Your task to perform on an android device: toggle notifications settings in the gmail app Image 0: 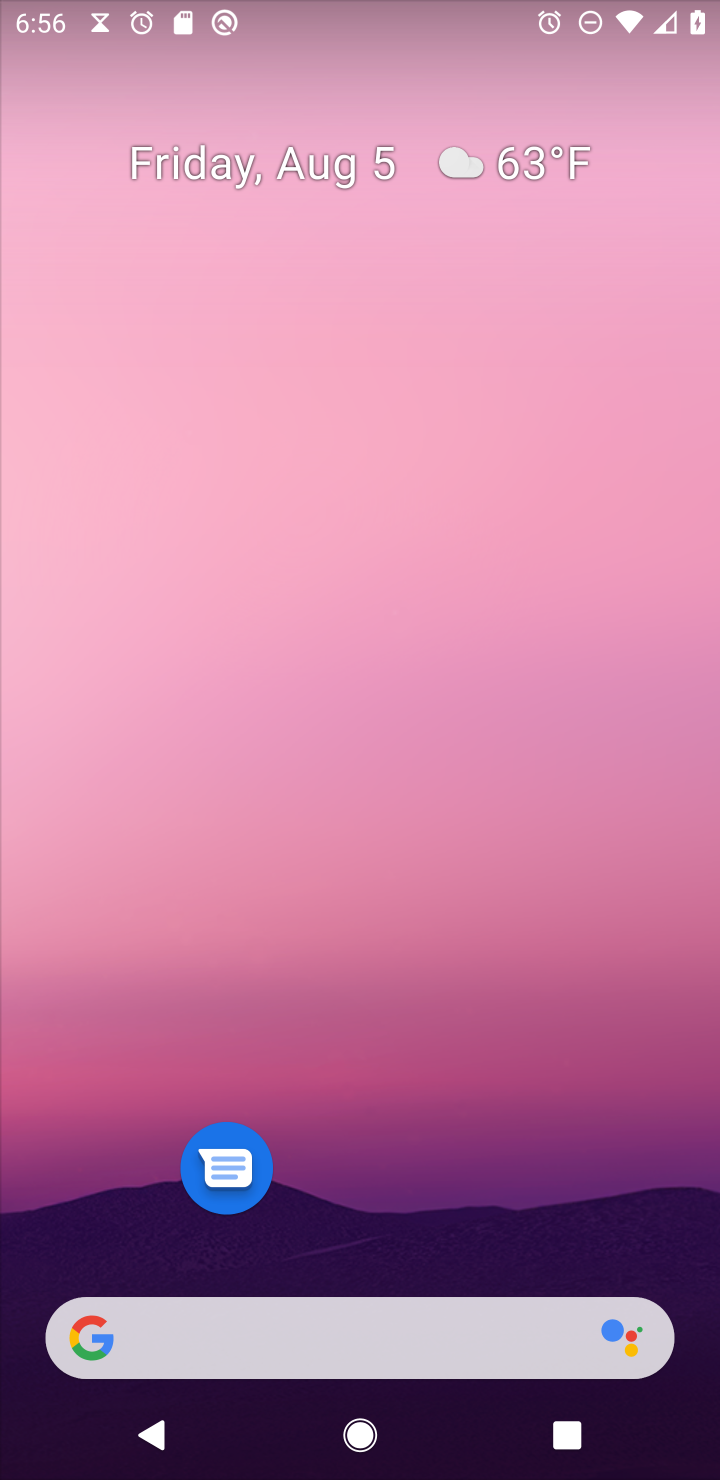
Step 0: drag from (409, 1094) to (609, 171)
Your task to perform on an android device: toggle notifications settings in the gmail app Image 1: 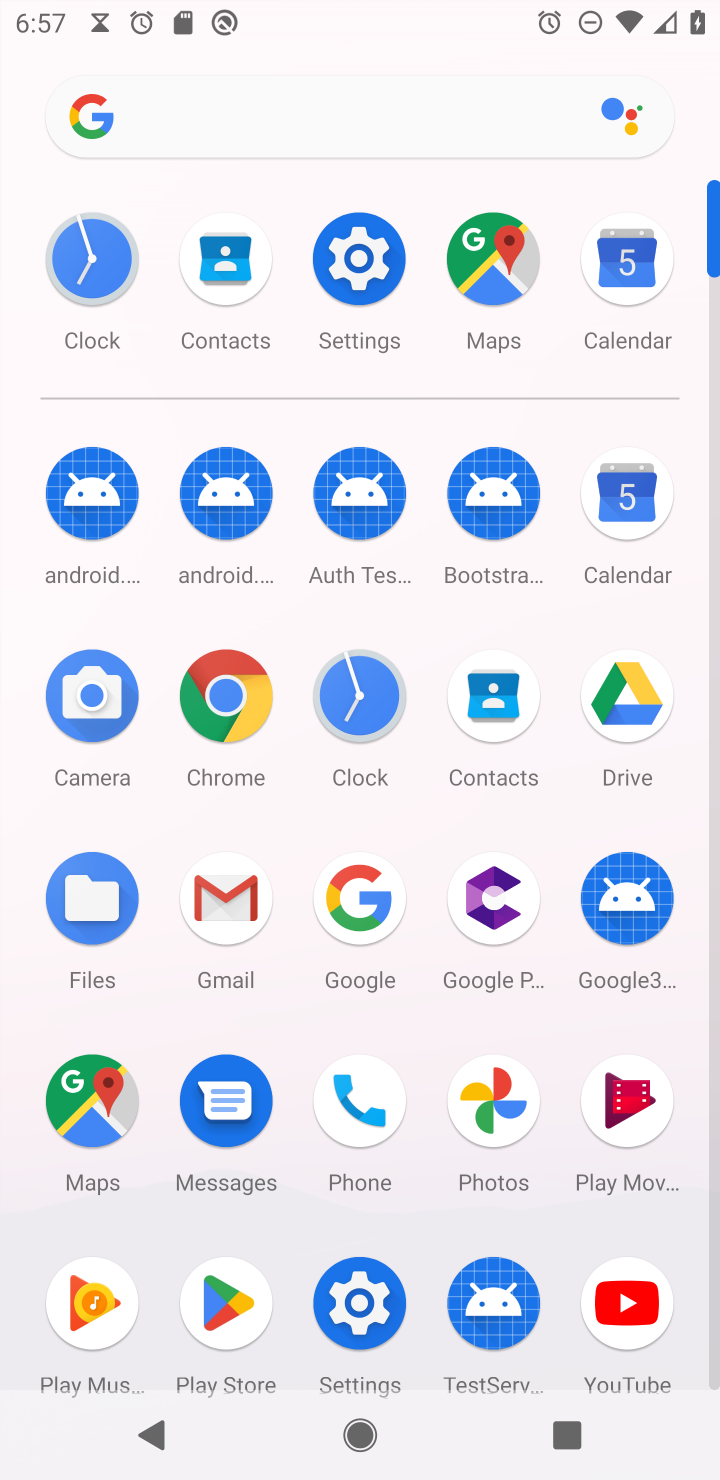
Step 1: click (216, 880)
Your task to perform on an android device: toggle notifications settings in the gmail app Image 2: 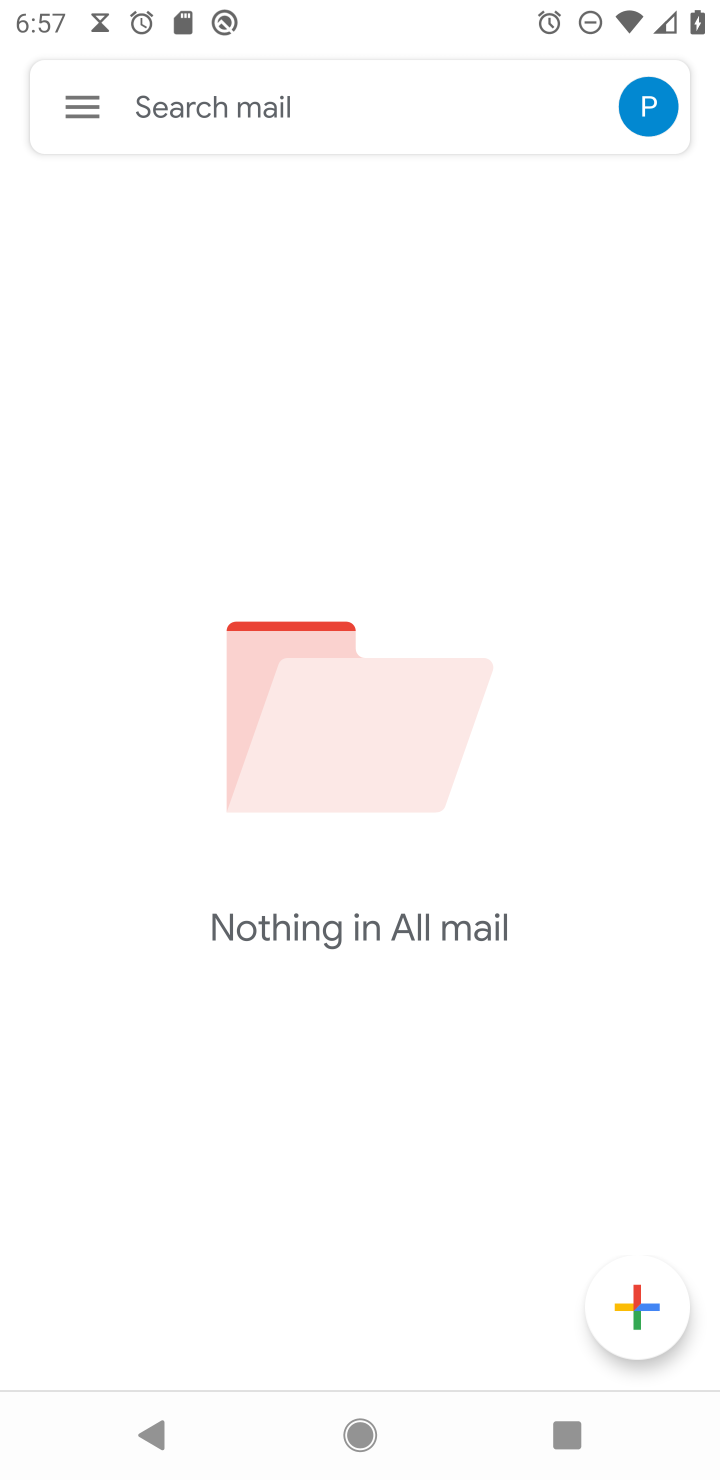
Step 2: click (65, 111)
Your task to perform on an android device: toggle notifications settings in the gmail app Image 3: 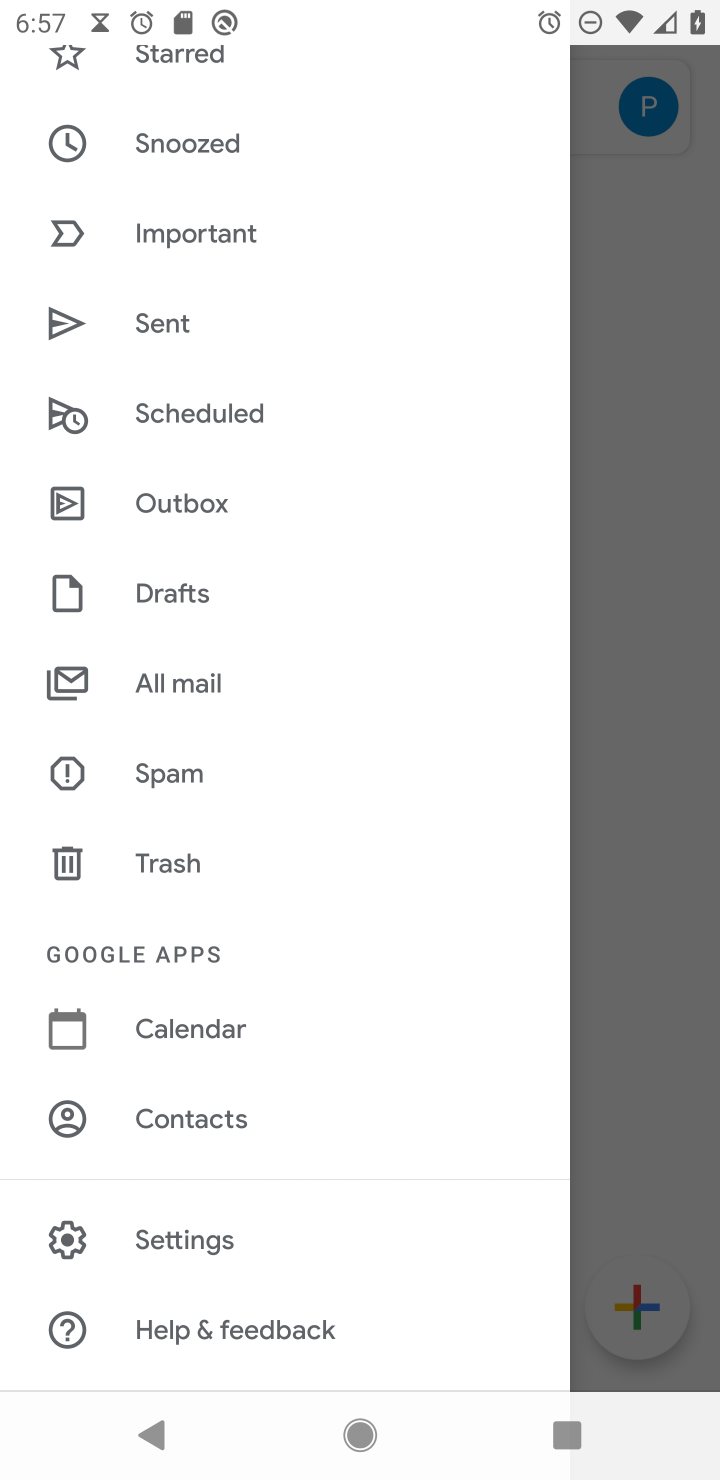
Step 3: click (170, 1253)
Your task to perform on an android device: toggle notifications settings in the gmail app Image 4: 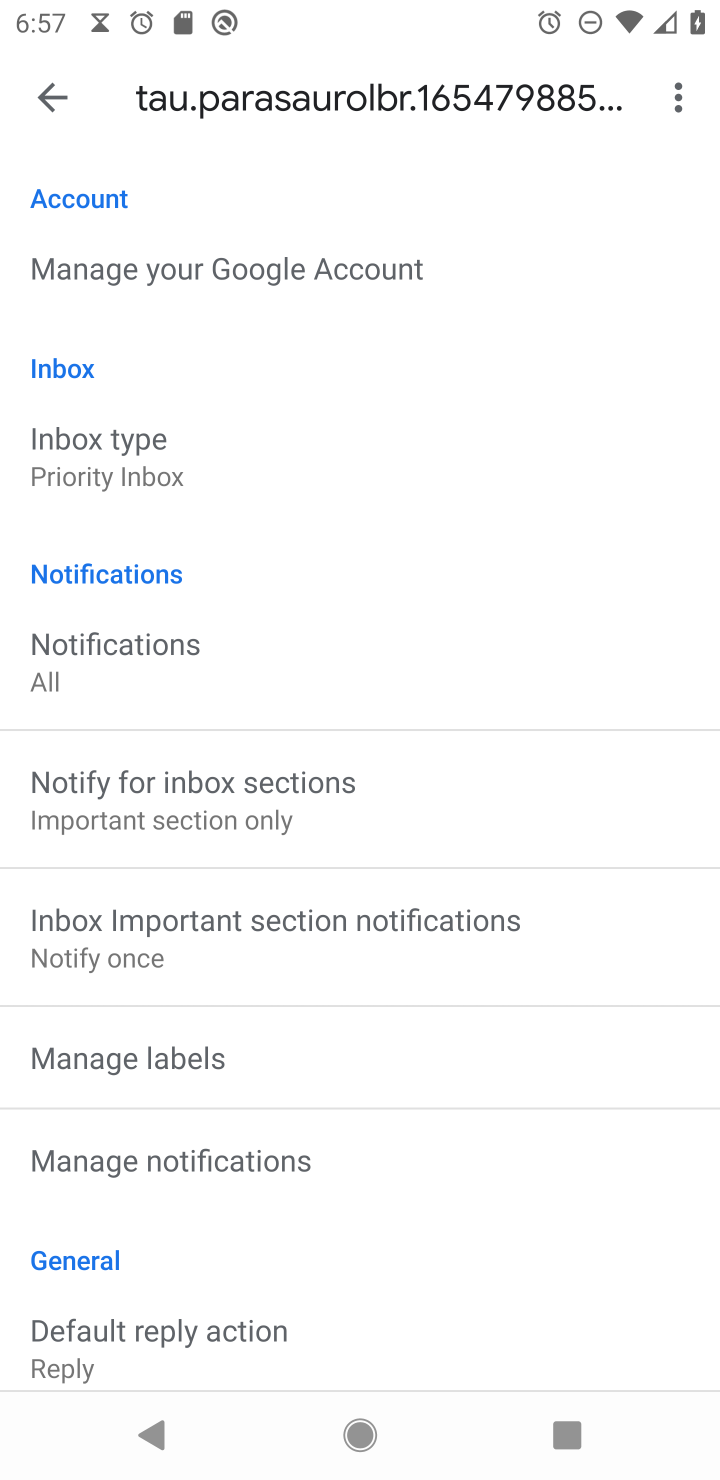
Step 4: click (180, 1168)
Your task to perform on an android device: toggle notifications settings in the gmail app Image 5: 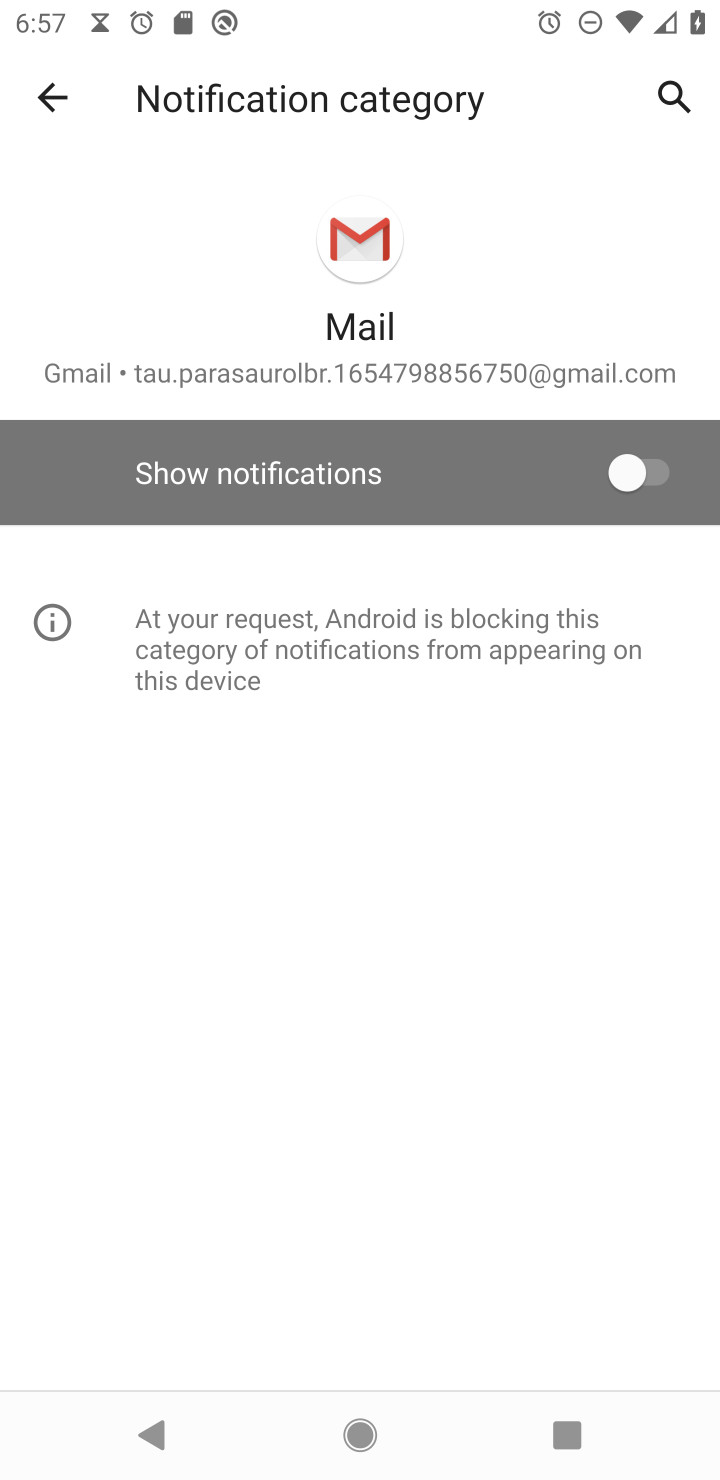
Step 5: click (626, 470)
Your task to perform on an android device: toggle notifications settings in the gmail app Image 6: 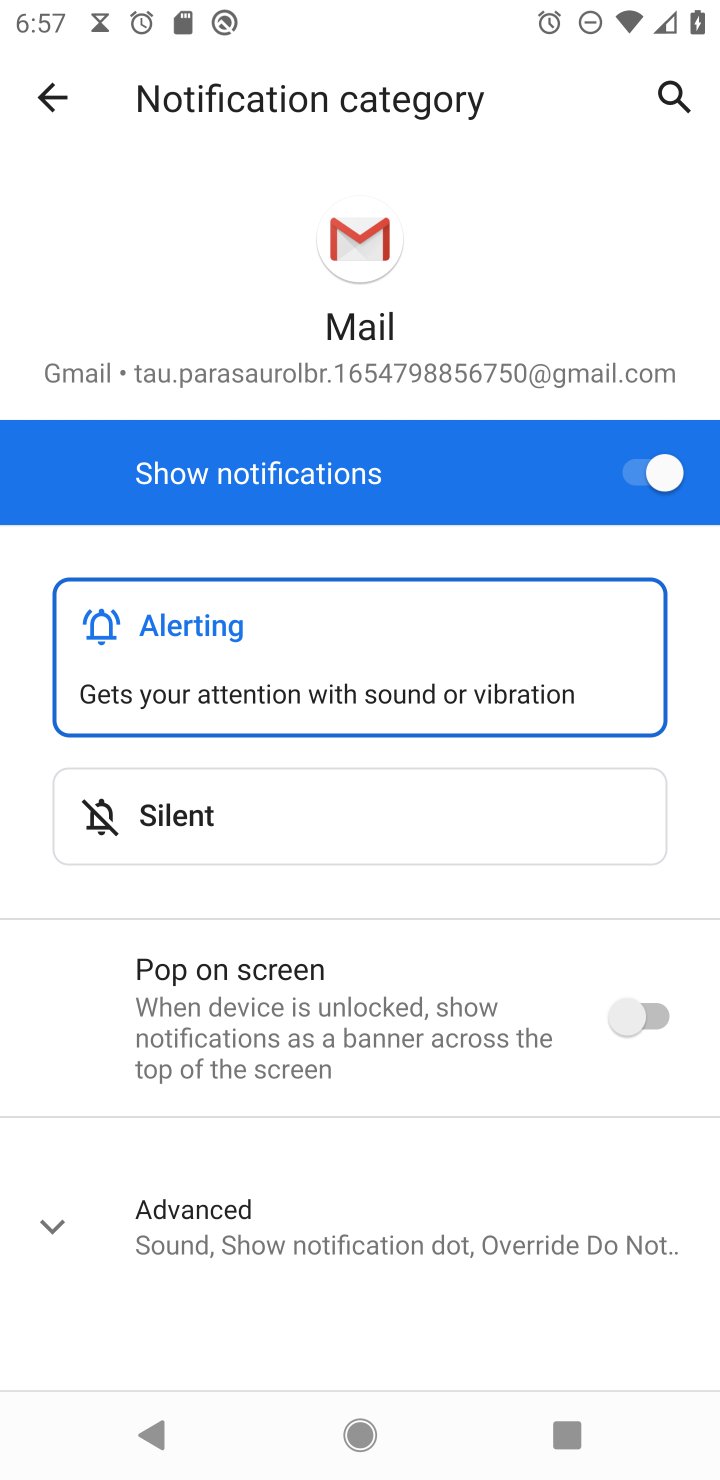
Step 6: task complete